Your task to perform on an android device: turn off sleep mode Image 0: 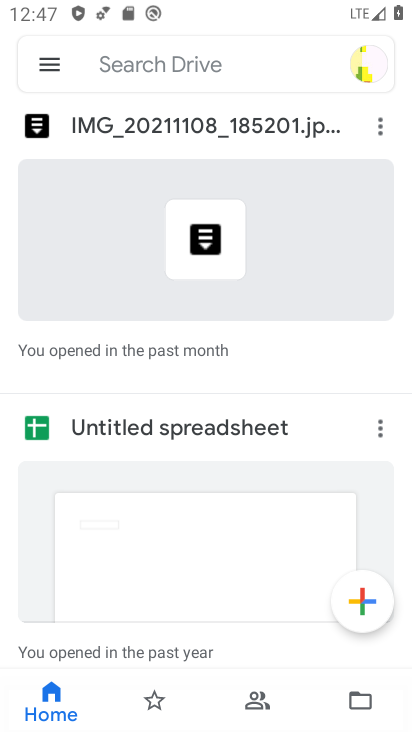
Step 0: press home button
Your task to perform on an android device: turn off sleep mode Image 1: 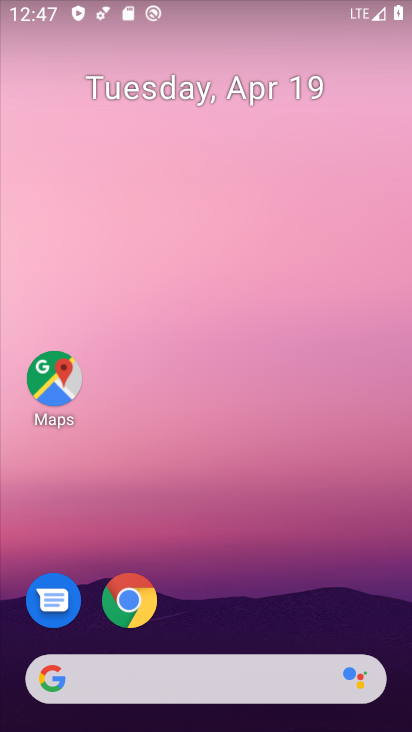
Step 1: drag from (232, 649) to (195, 11)
Your task to perform on an android device: turn off sleep mode Image 2: 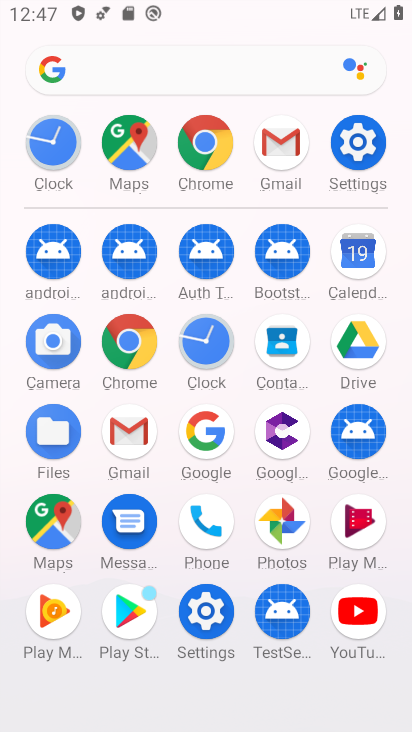
Step 2: click (349, 163)
Your task to perform on an android device: turn off sleep mode Image 3: 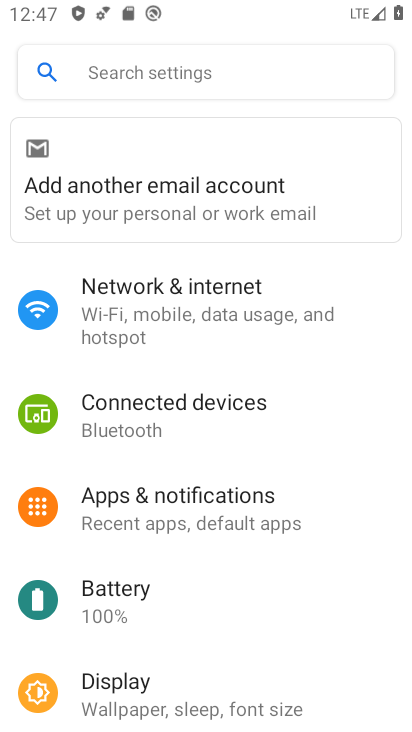
Step 3: drag from (274, 634) to (232, 310)
Your task to perform on an android device: turn off sleep mode Image 4: 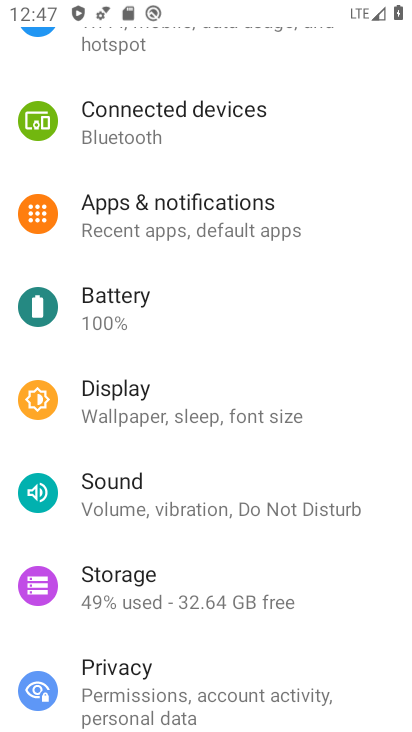
Step 4: click (166, 414)
Your task to perform on an android device: turn off sleep mode Image 5: 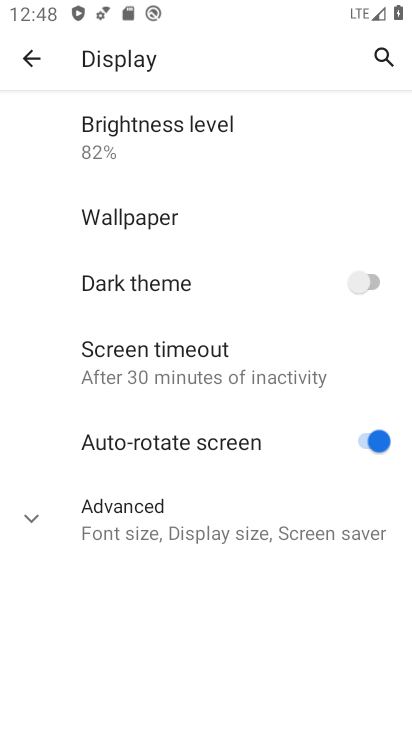
Step 5: task complete